Your task to perform on an android device: What's the weather going to be this weekend? Image 0: 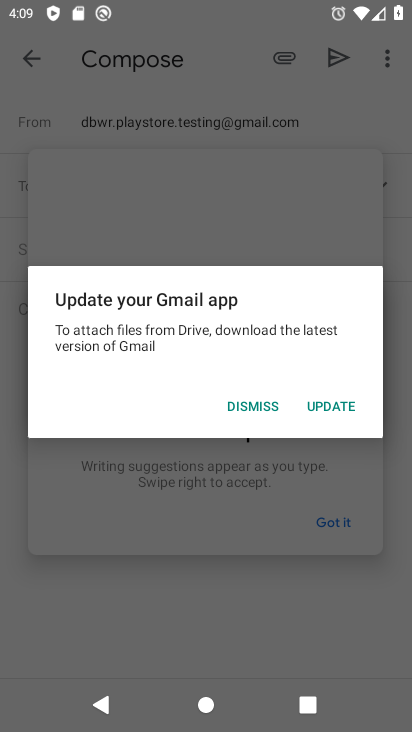
Step 0: press home button
Your task to perform on an android device: What's the weather going to be this weekend? Image 1: 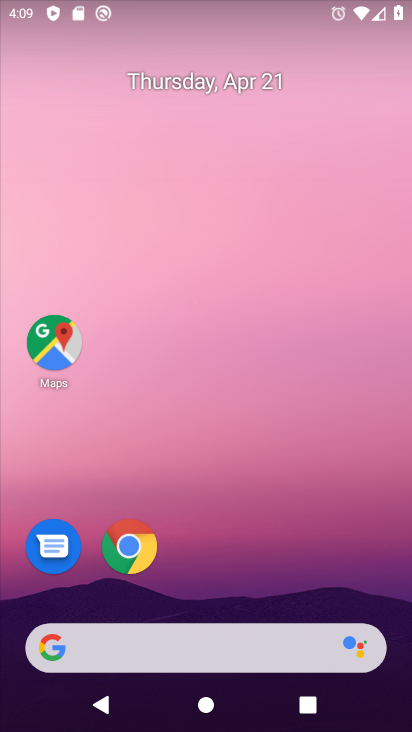
Step 1: drag from (245, 571) to (244, 95)
Your task to perform on an android device: What's the weather going to be this weekend? Image 2: 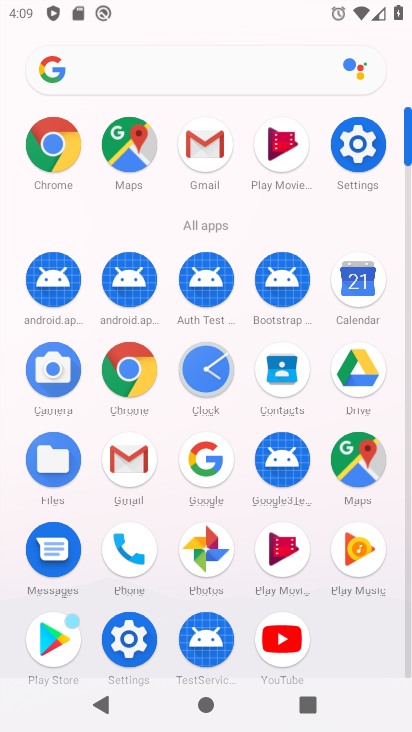
Step 2: click (143, 370)
Your task to perform on an android device: What's the weather going to be this weekend? Image 3: 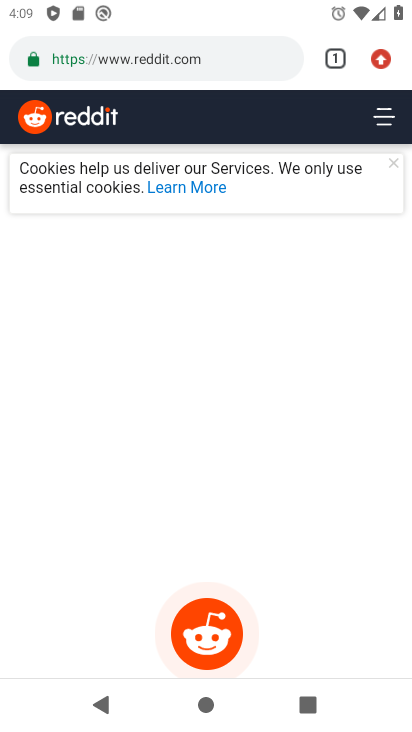
Step 3: click (246, 56)
Your task to perform on an android device: What's the weather going to be this weekend? Image 4: 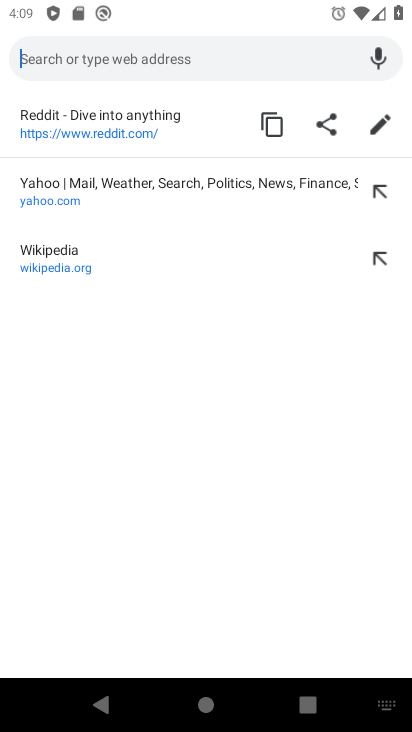
Step 4: type "weather"
Your task to perform on an android device: What's the weather going to be this weekend? Image 5: 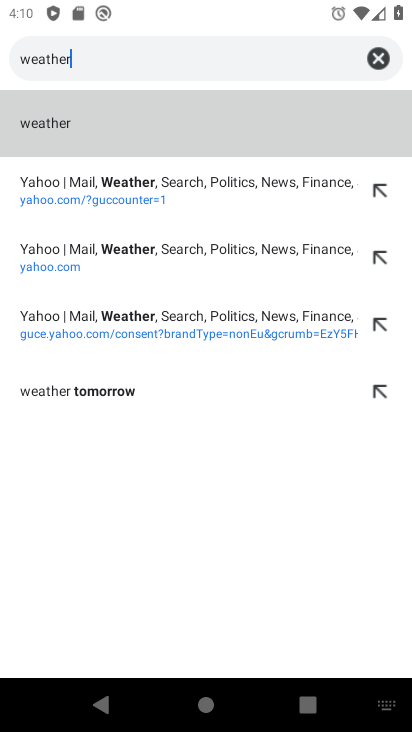
Step 5: click (142, 124)
Your task to perform on an android device: What's the weather going to be this weekend? Image 6: 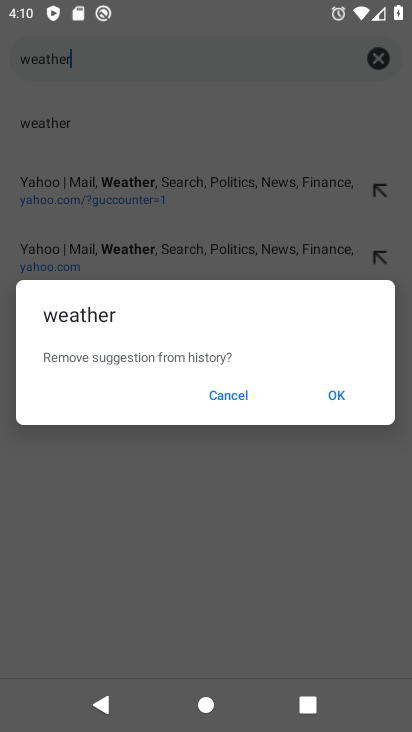
Step 6: click (226, 395)
Your task to perform on an android device: What's the weather going to be this weekend? Image 7: 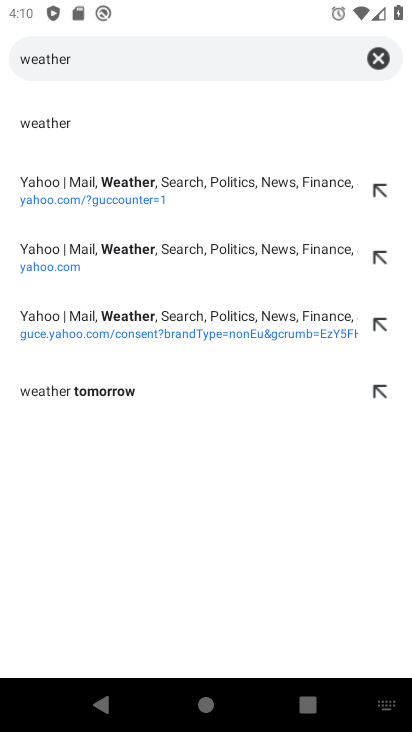
Step 7: click (41, 129)
Your task to perform on an android device: What's the weather going to be this weekend? Image 8: 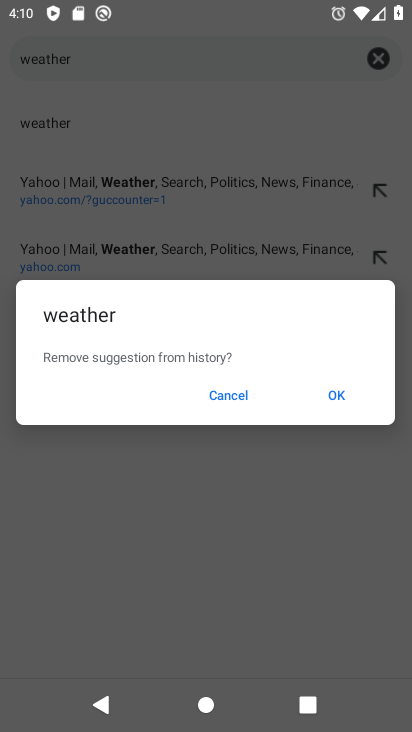
Step 8: click (225, 387)
Your task to perform on an android device: What's the weather going to be this weekend? Image 9: 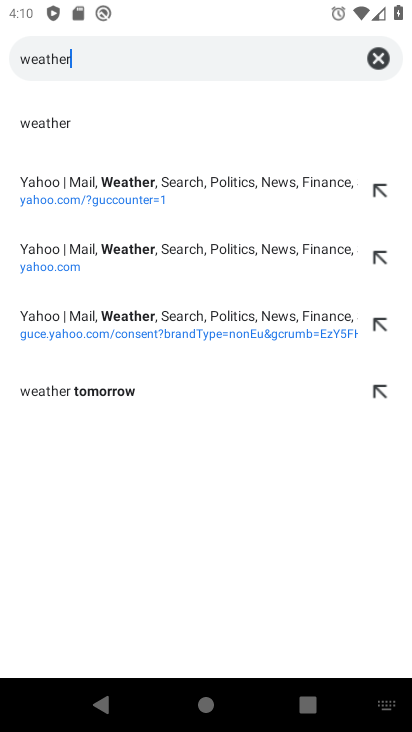
Step 9: press enter
Your task to perform on an android device: What's the weather going to be this weekend? Image 10: 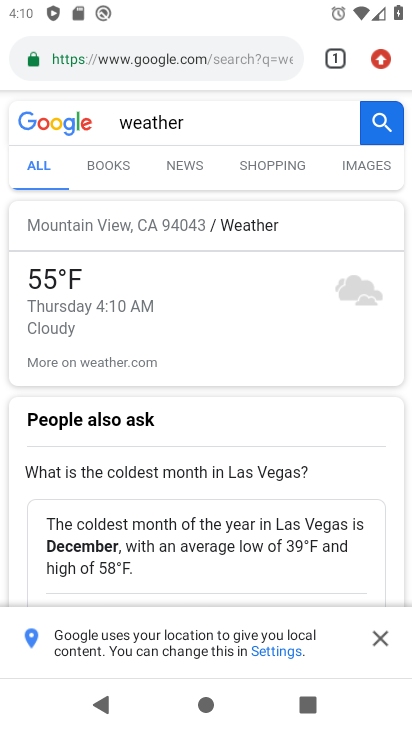
Step 10: drag from (230, 470) to (265, 133)
Your task to perform on an android device: What's the weather going to be this weekend? Image 11: 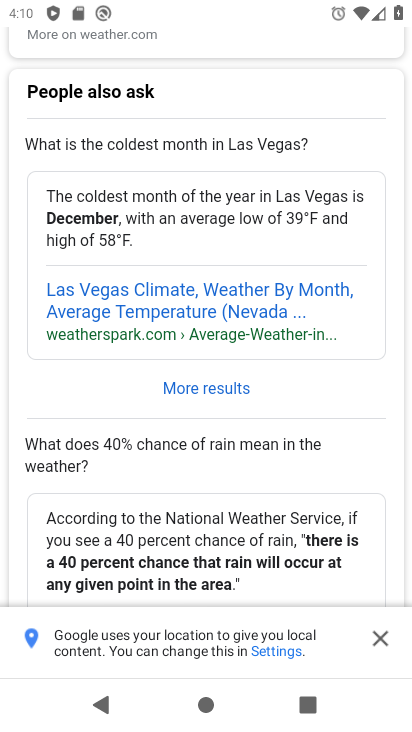
Step 11: drag from (220, 431) to (240, 729)
Your task to perform on an android device: What's the weather going to be this weekend? Image 12: 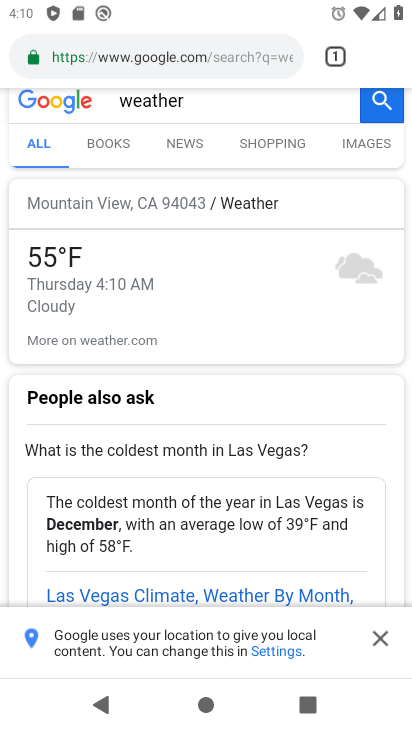
Step 12: drag from (213, 320) to (252, 648)
Your task to perform on an android device: What's the weather going to be this weekend? Image 13: 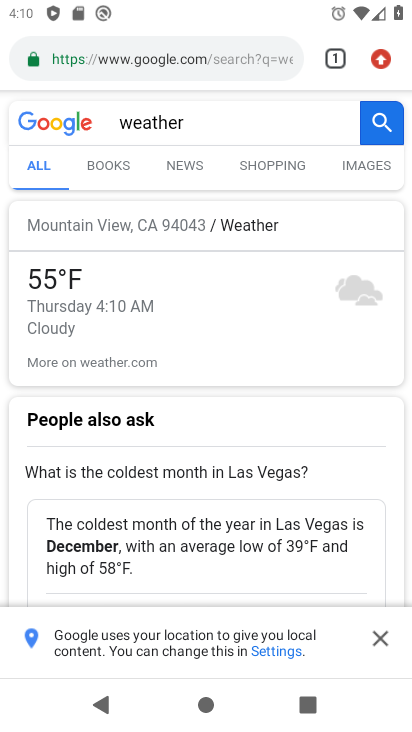
Step 13: click (126, 59)
Your task to perform on an android device: What's the weather going to be this weekend? Image 14: 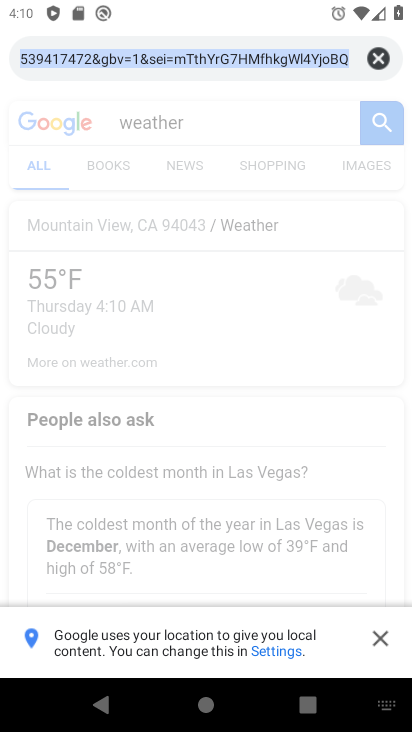
Step 14: type "weather"
Your task to perform on an android device: What's the weather going to be this weekend? Image 15: 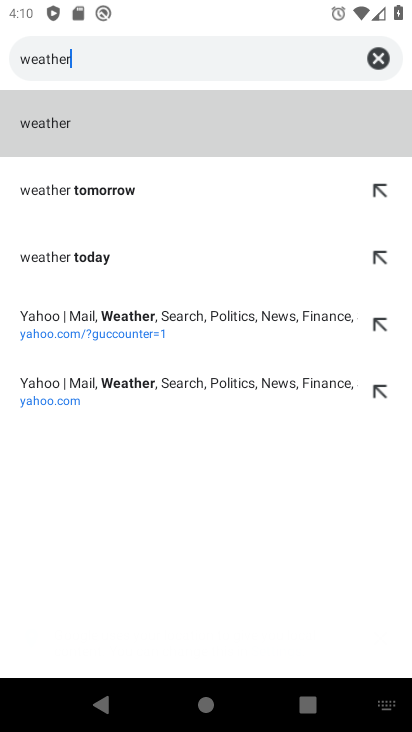
Step 15: press enter
Your task to perform on an android device: What's the weather going to be this weekend? Image 16: 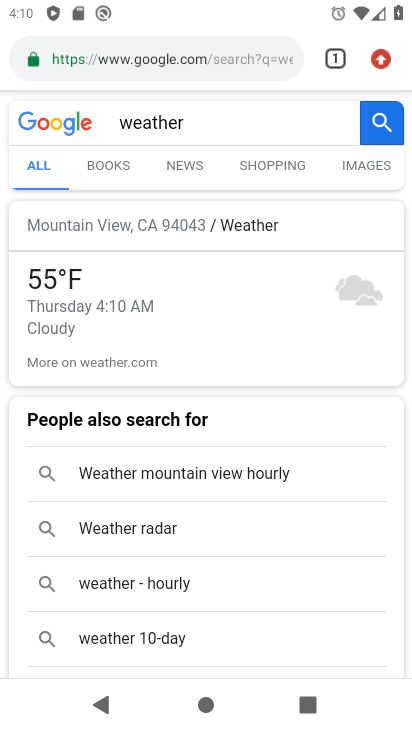
Step 16: drag from (312, 362) to (321, 53)
Your task to perform on an android device: What's the weather going to be this weekend? Image 17: 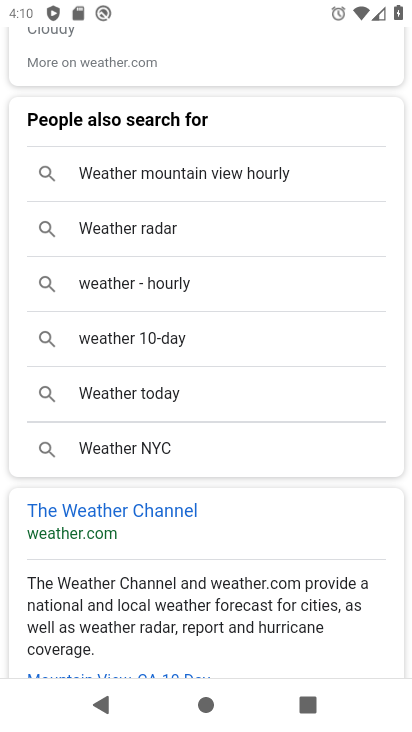
Step 17: drag from (247, 66) to (272, 518)
Your task to perform on an android device: What's the weather going to be this weekend? Image 18: 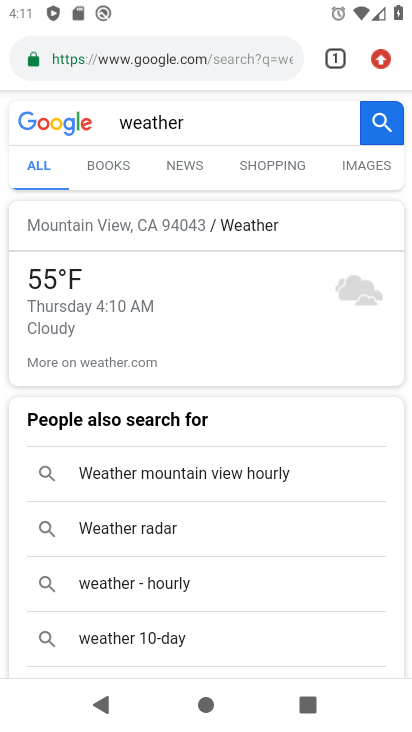
Step 18: click (150, 302)
Your task to perform on an android device: What's the weather going to be this weekend? Image 19: 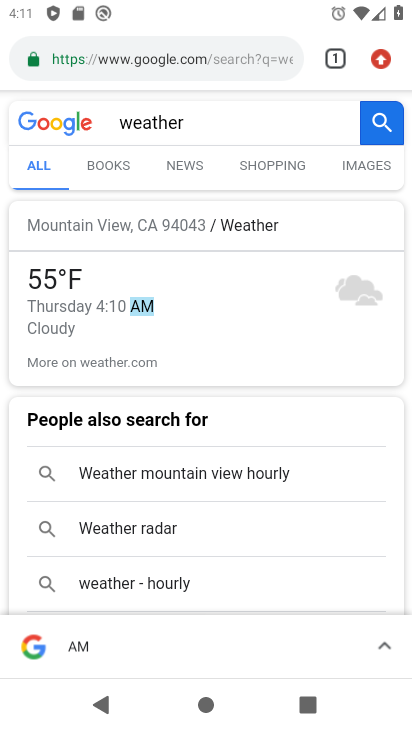
Step 19: click (205, 295)
Your task to perform on an android device: What's the weather going to be this weekend? Image 20: 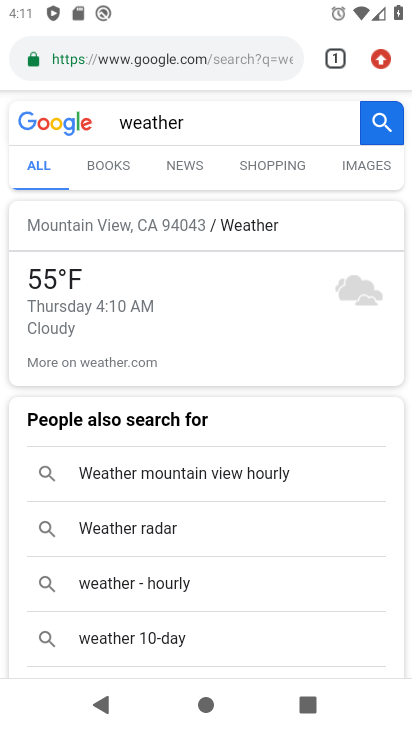
Step 20: click (230, 119)
Your task to perform on an android device: What's the weather going to be this weekend? Image 21: 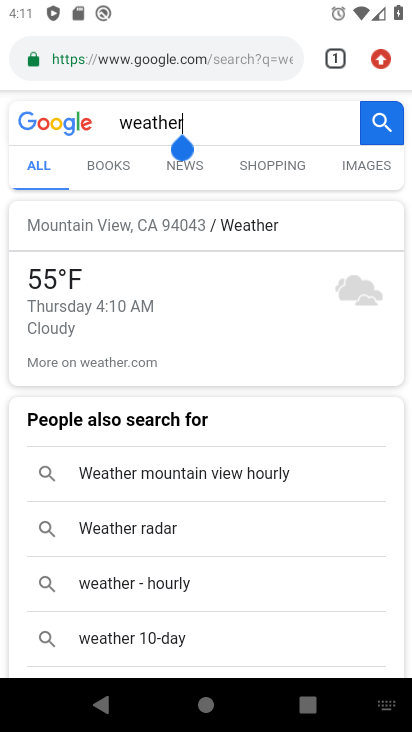
Step 21: type " weekend"
Your task to perform on an android device: What's the weather going to be this weekend? Image 22: 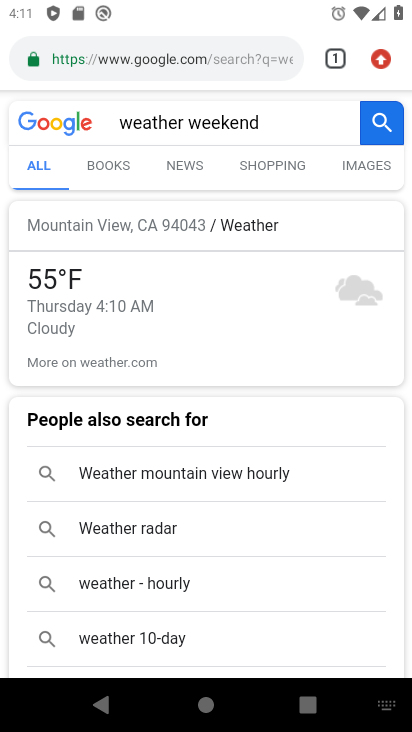
Step 22: click (381, 126)
Your task to perform on an android device: What's the weather going to be this weekend? Image 23: 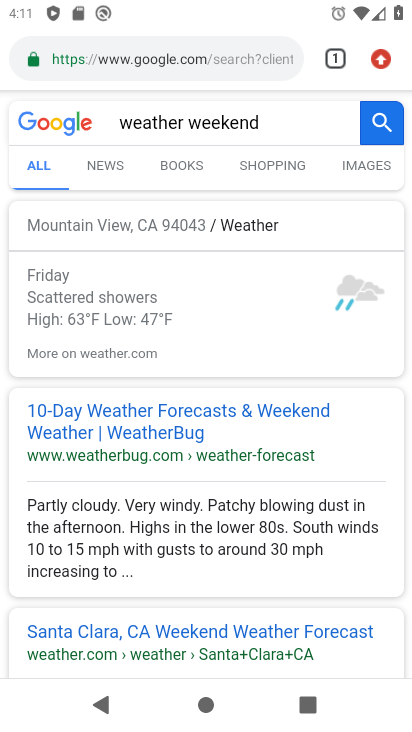
Step 23: click (249, 418)
Your task to perform on an android device: What's the weather going to be this weekend? Image 24: 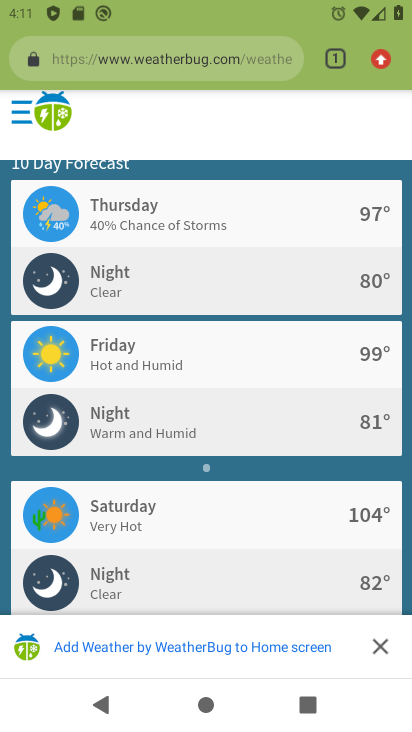
Step 24: task complete